Your task to perform on an android device: open app "Etsy: Buy & Sell Unique Items" (install if not already installed) and go to login screen Image 0: 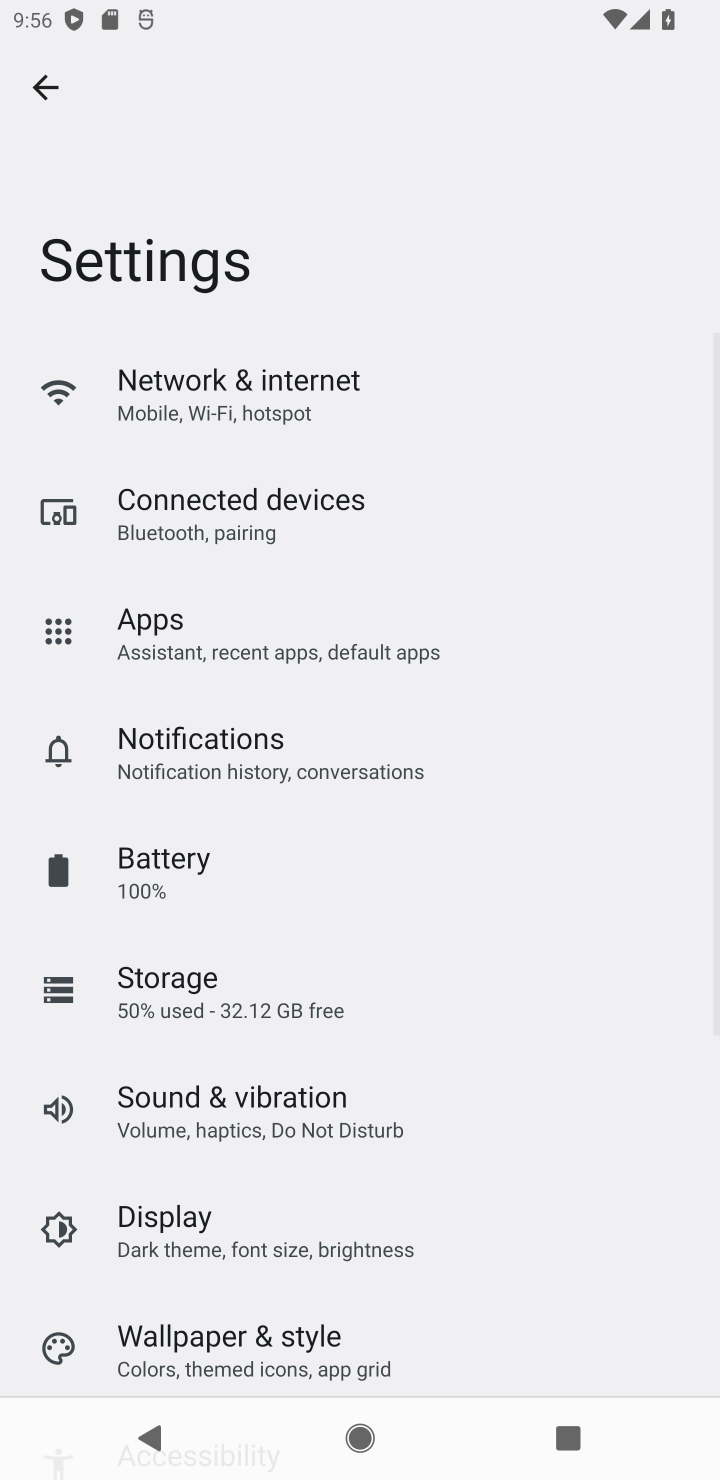
Step 0: press home button
Your task to perform on an android device: open app "Etsy: Buy & Sell Unique Items" (install if not already installed) and go to login screen Image 1: 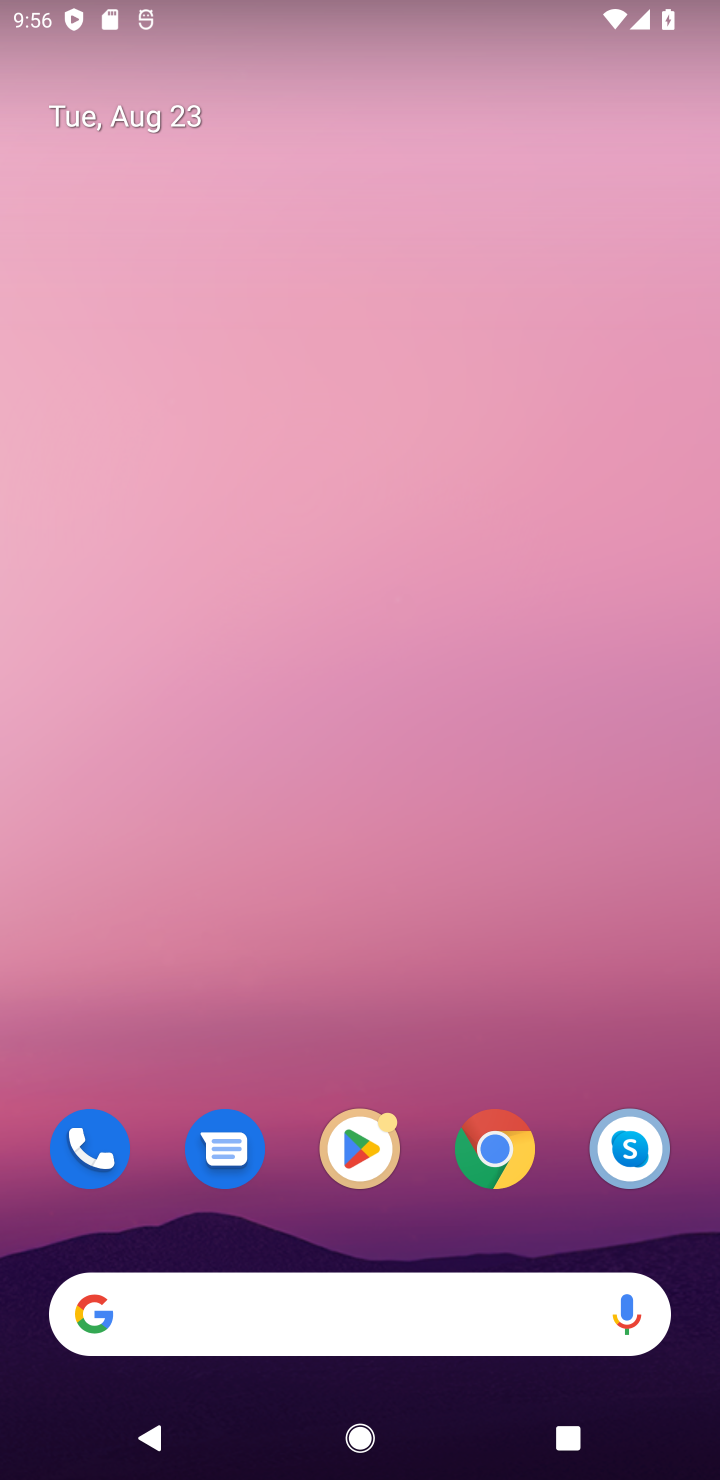
Step 1: click (360, 1168)
Your task to perform on an android device: open app "Etsy: Buy & Sell Unique Items" (install if not already installed) and go to login screen Image 2: 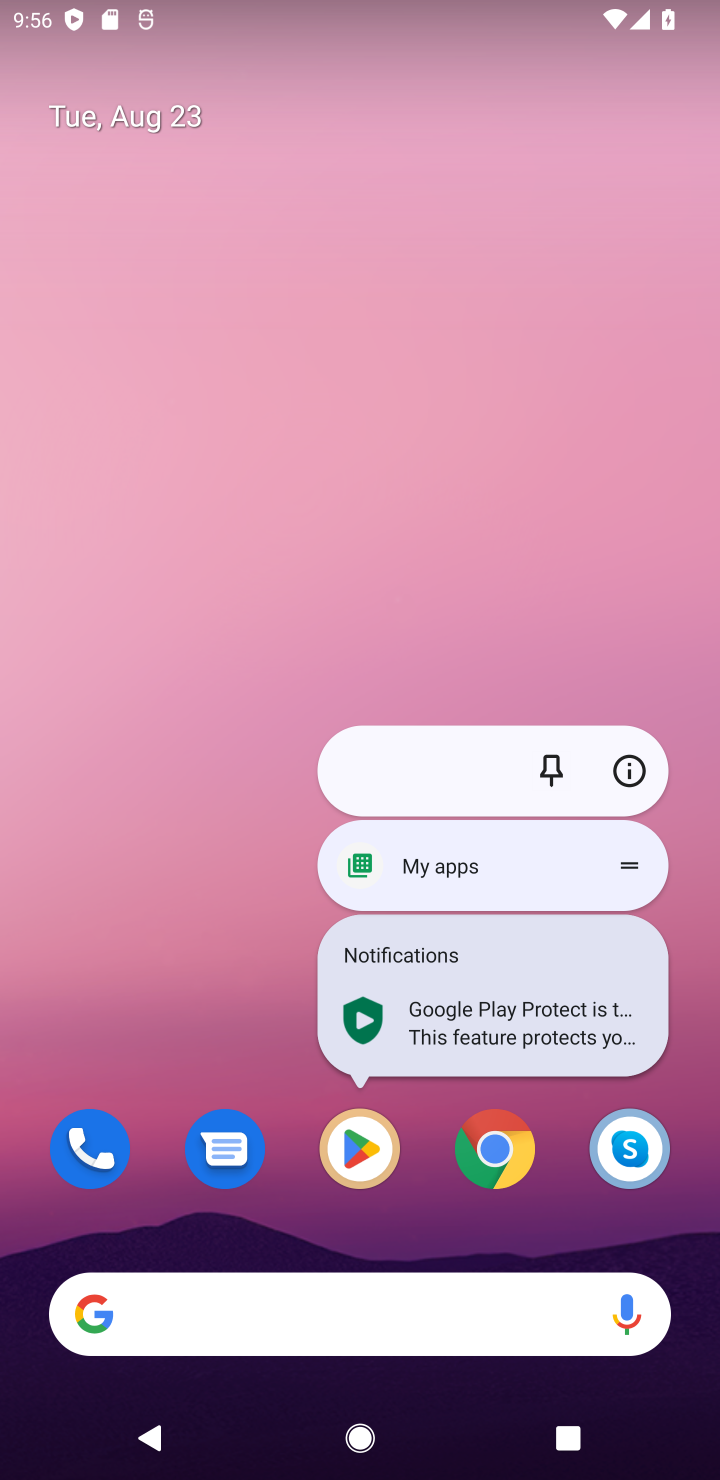
Step 2: click (360, 1151)
Your task to perform on an android device: open app "Etsy: Buy & Sell Unique Items" (install if not already installed) and go to login screen Image 3: 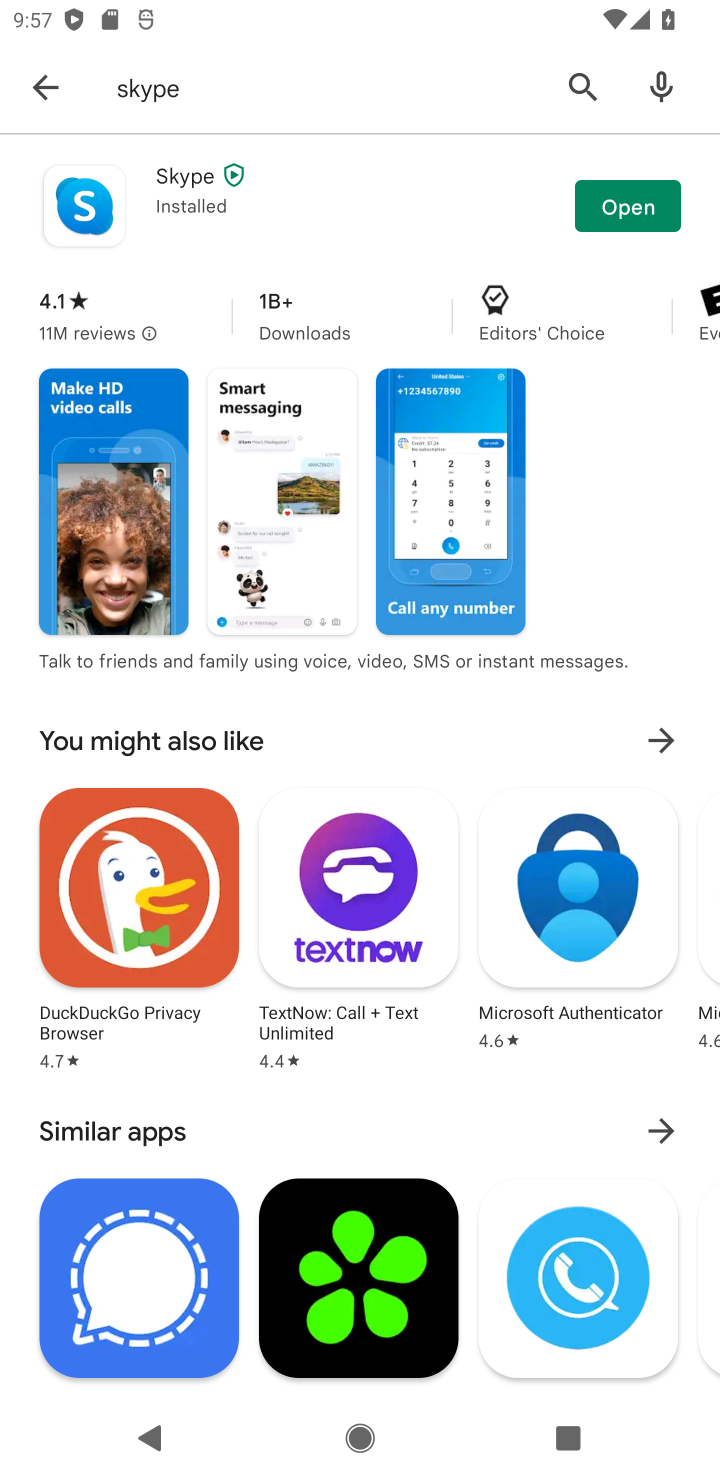
Step 3: click (556, 74)
Your task to perform on an android device: open app "Etsy: Buy & Sell Unique Items" (install if not already installed) and go to login screen Image 4: 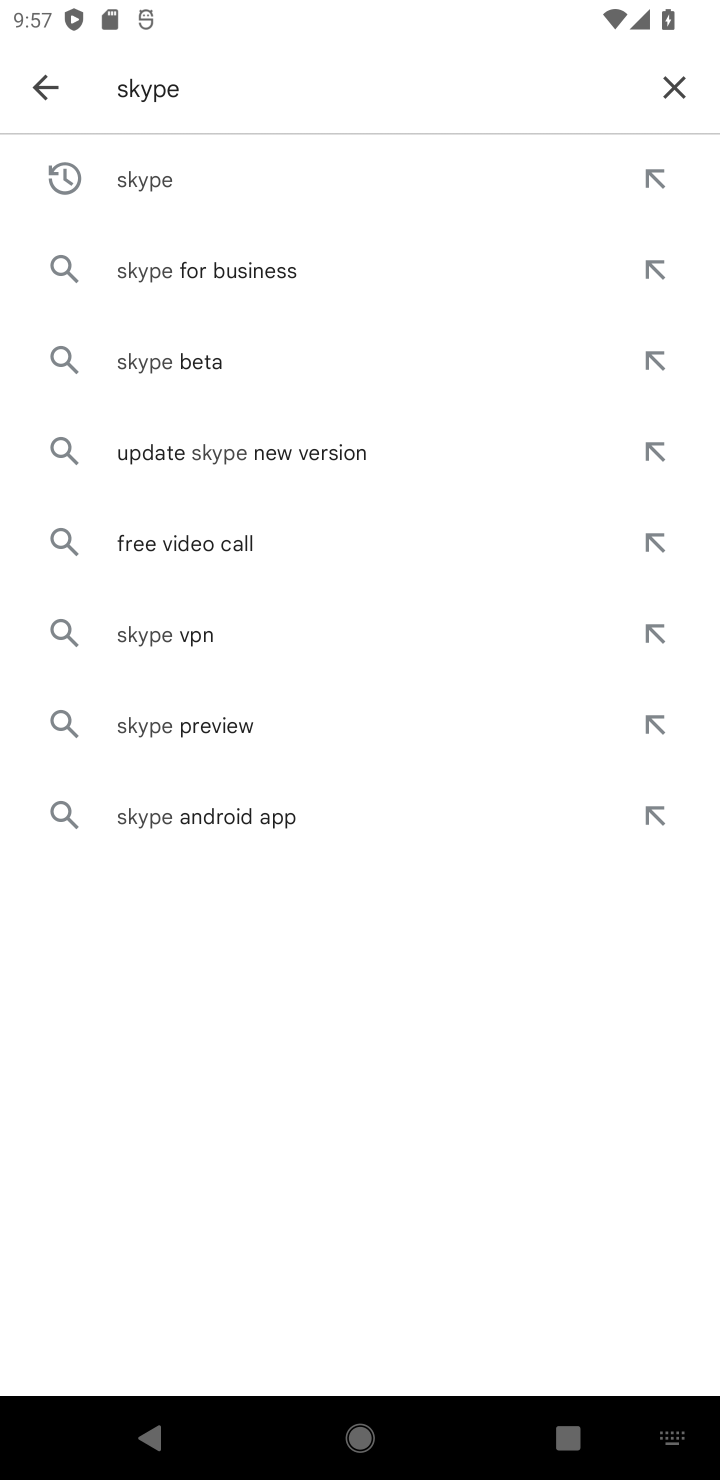
Step 4: click (679, 96)
Your task to perform on an android device: open app "Etsy: Buy & Sell Unique Items" (install if not already installed) and go to login screen Image 5: 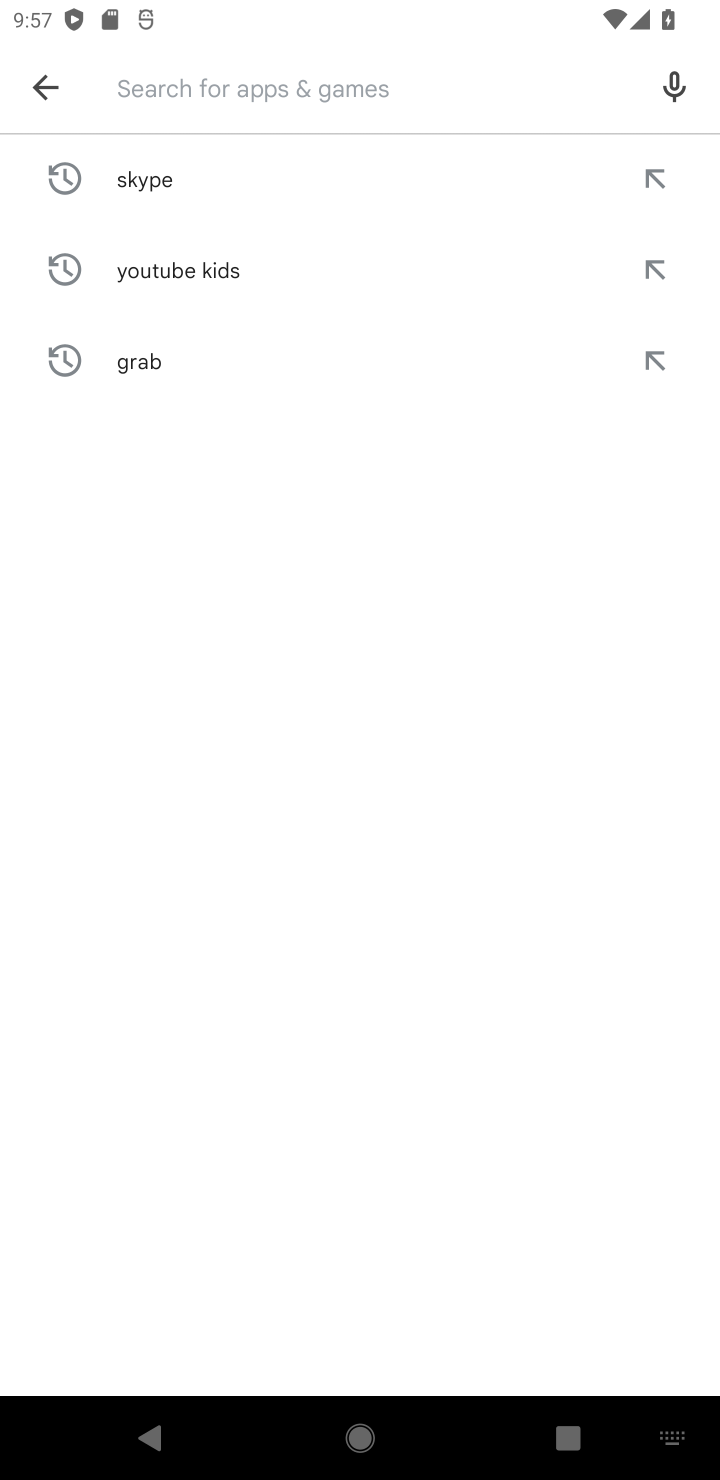
Step 5: type "etsu"
Your task to perform on an android device: open app "Etsy: Buy & Sell Unique Items" (install if not already installed) and go to login screen Image 6: 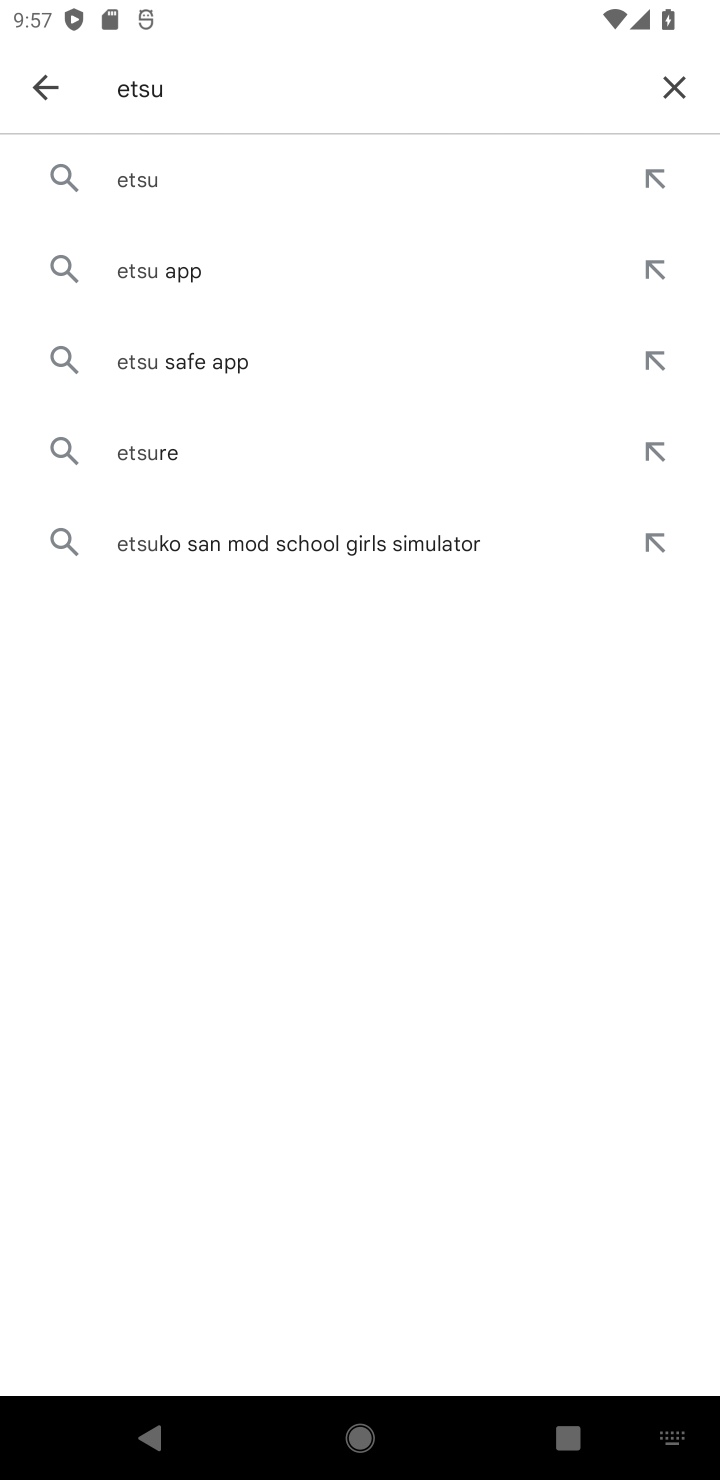
Step 6: click (669, 87)
Your task to perform on an android device: open app "Etsy: Buy & Sell Unique Items" (install if not already installed) and go to login screen Image 7: 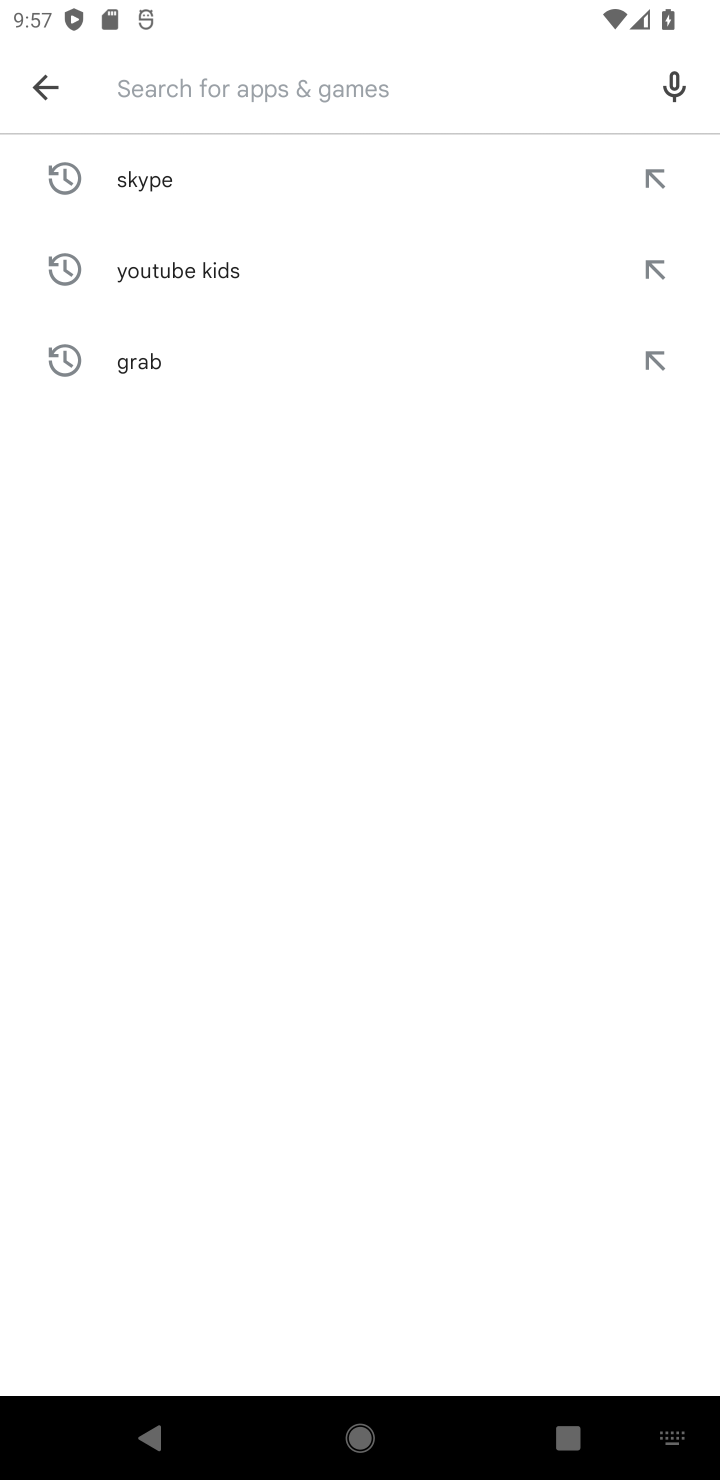
Step 7: type "etsy"
Your task to perform on an android device: open app "Etsy: Buy & Sell Unique Items" (install if not already installed) and go to login screen Image 8: 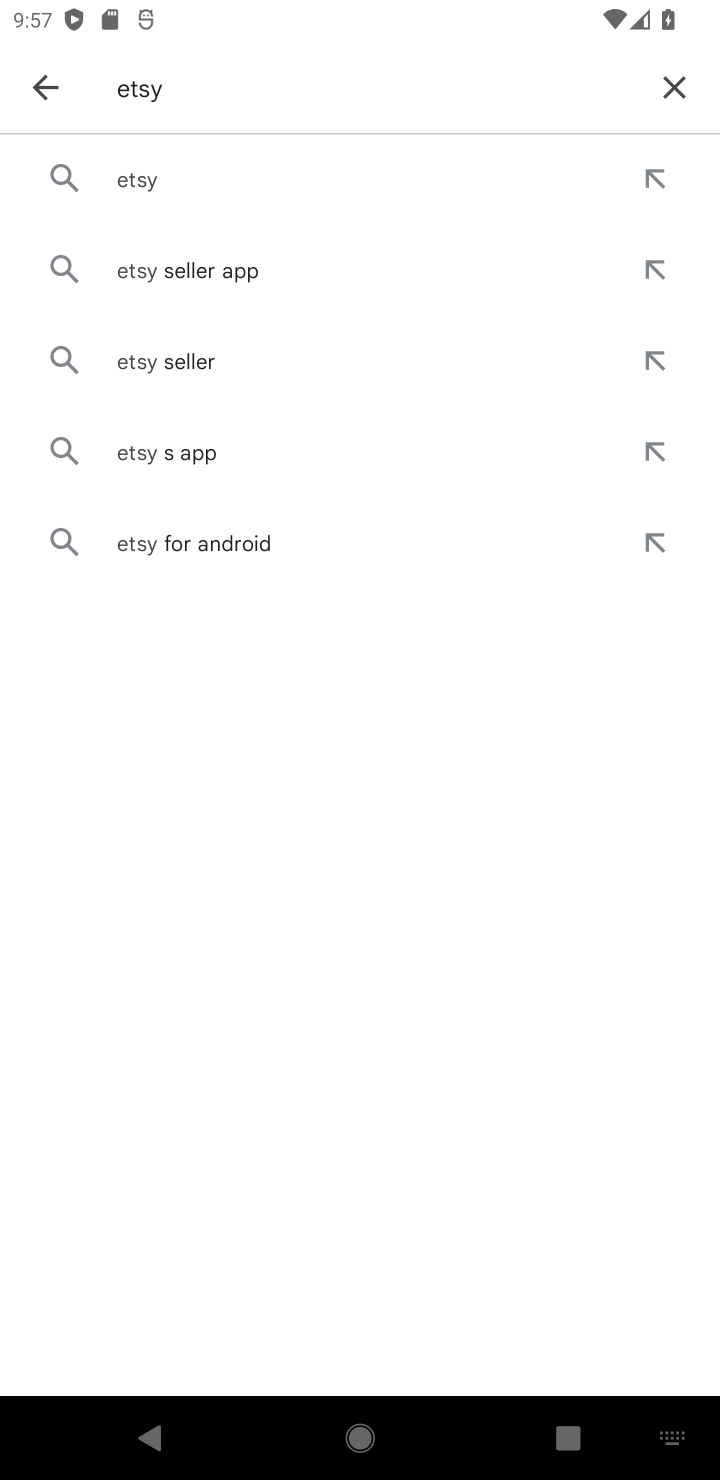
Step 8: click (249, 154)
Your task to perform on an android device: open app "Etsy: Buy & Sell Unique Items" (install if not already installed) and go to login screen Image 9: 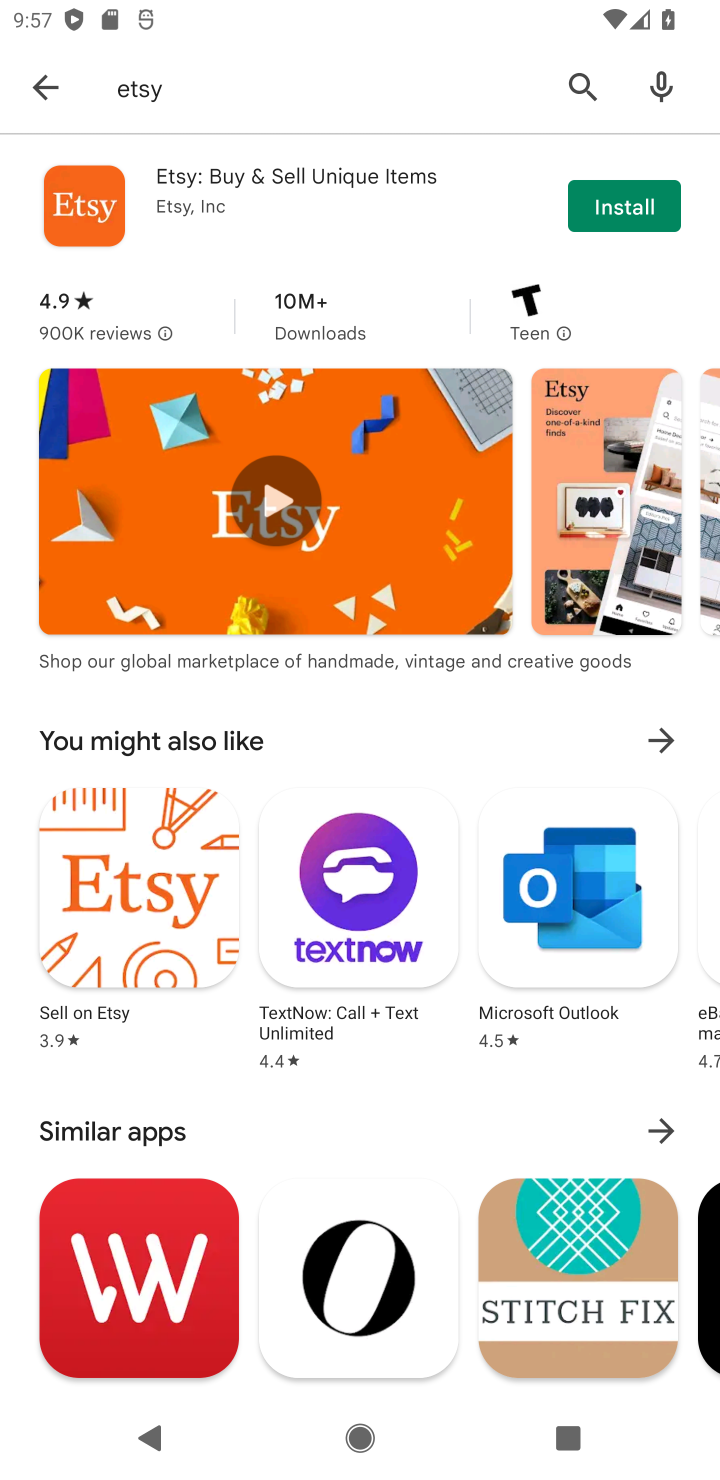
Step 9: click (635, 183)
Your task to perform on an android device: open app "Etsy: Buy & Sell Unique Items" (install if not already installed) and go to login screen Image 10: 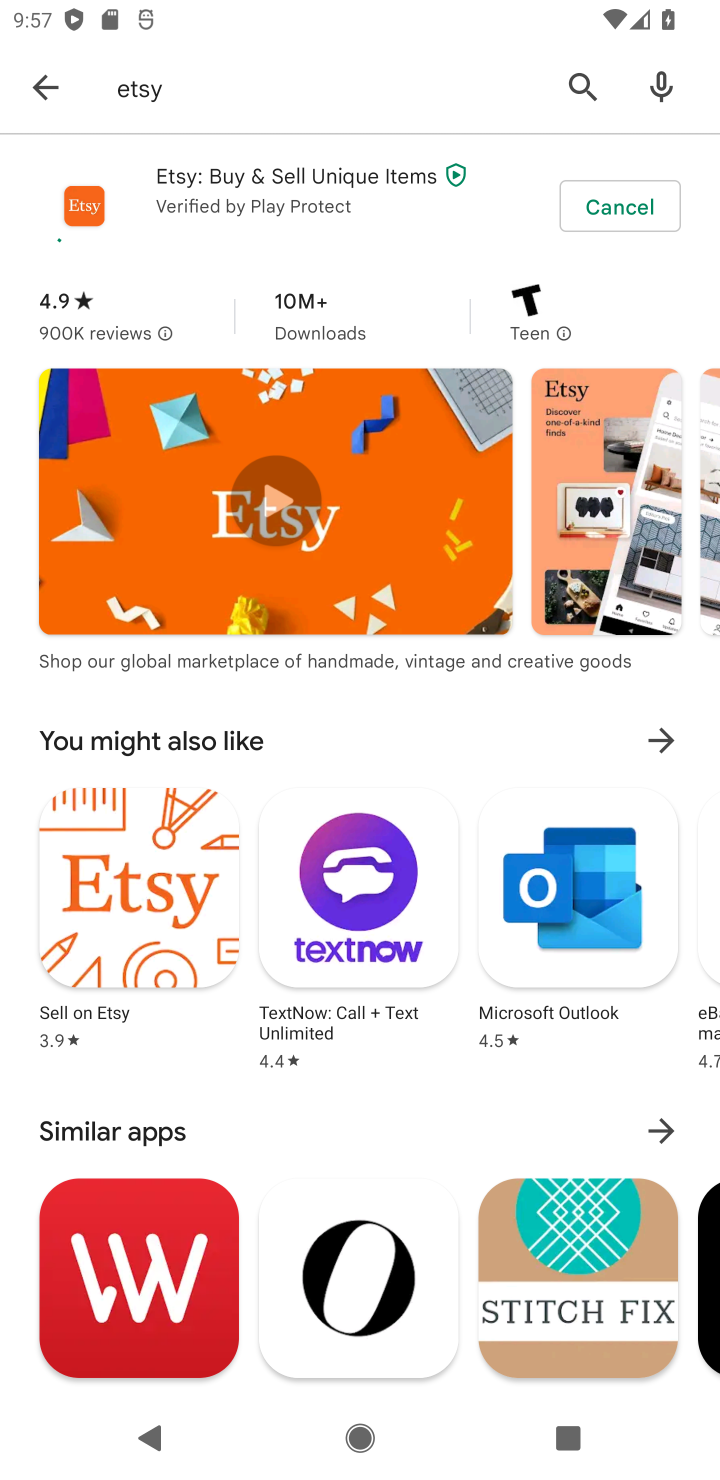
Step 10: task complete